Your task to perform on an android device: Is it going to rain today? Image 0: 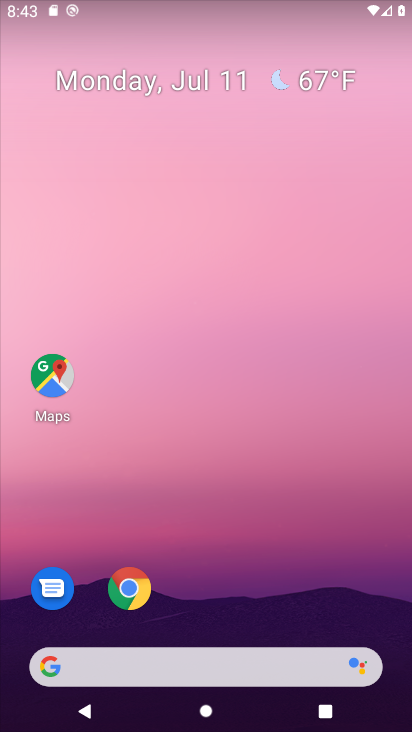
Step 0: click (225, 659)
Your task to perform on an android device: Is it going to rain today? Image 1: 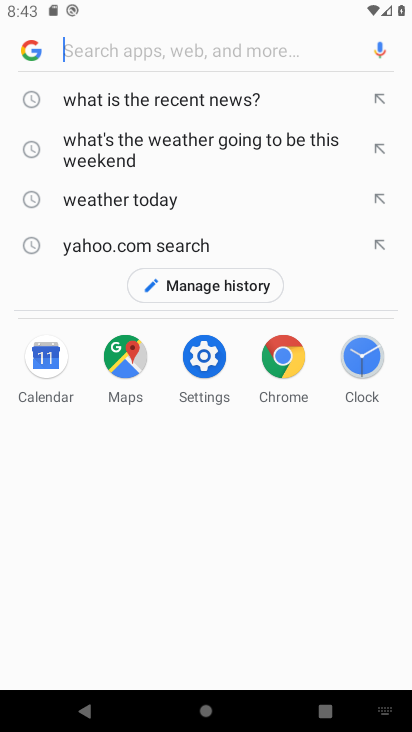
Step 1: type "is it going to rain today "
Your task to perform on an android device: Is it going to rain today? Image 2: 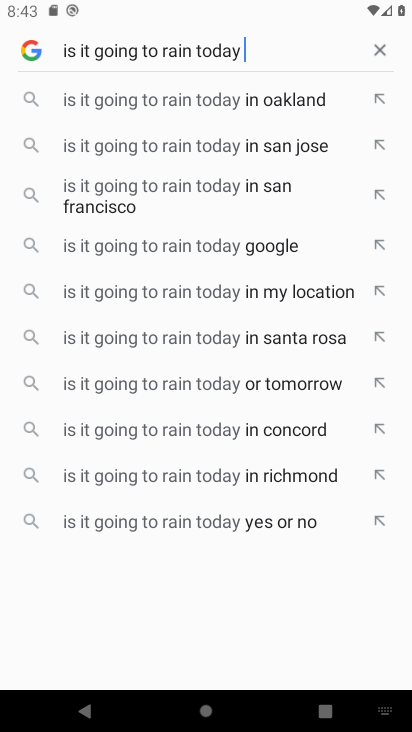
Step 2: type "?"
Your task to perform on an android device: Is it going to rain today? Image 3: 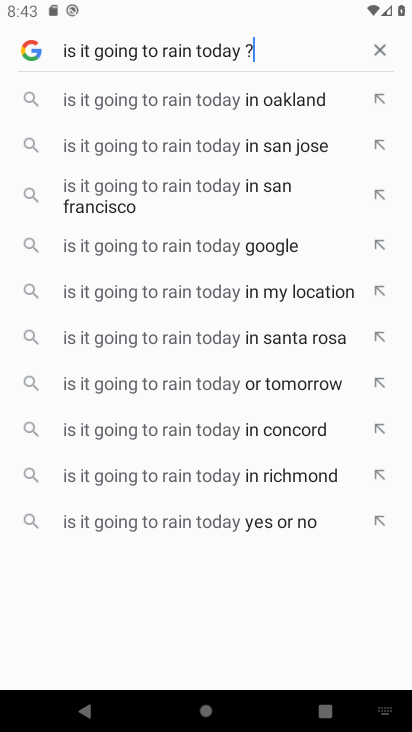
Step 3: click (306, 251)
Your task to perform on an android device: Is it going to rain today? Image 4: 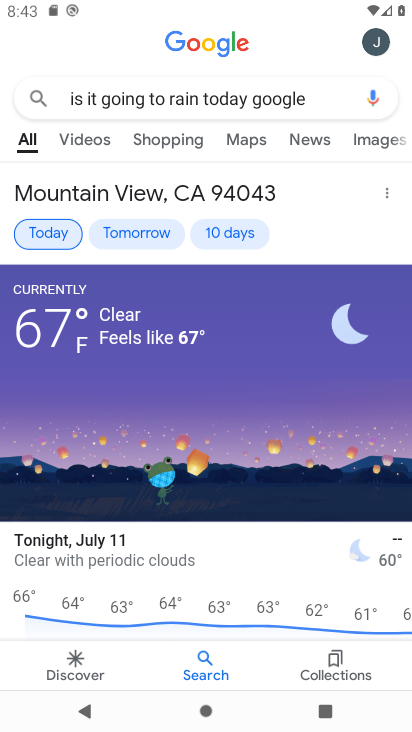
Step 4: task complete